Your task to perform on an android device: Add "macbook pro 13 inch" to the cart on target.com Image 0: 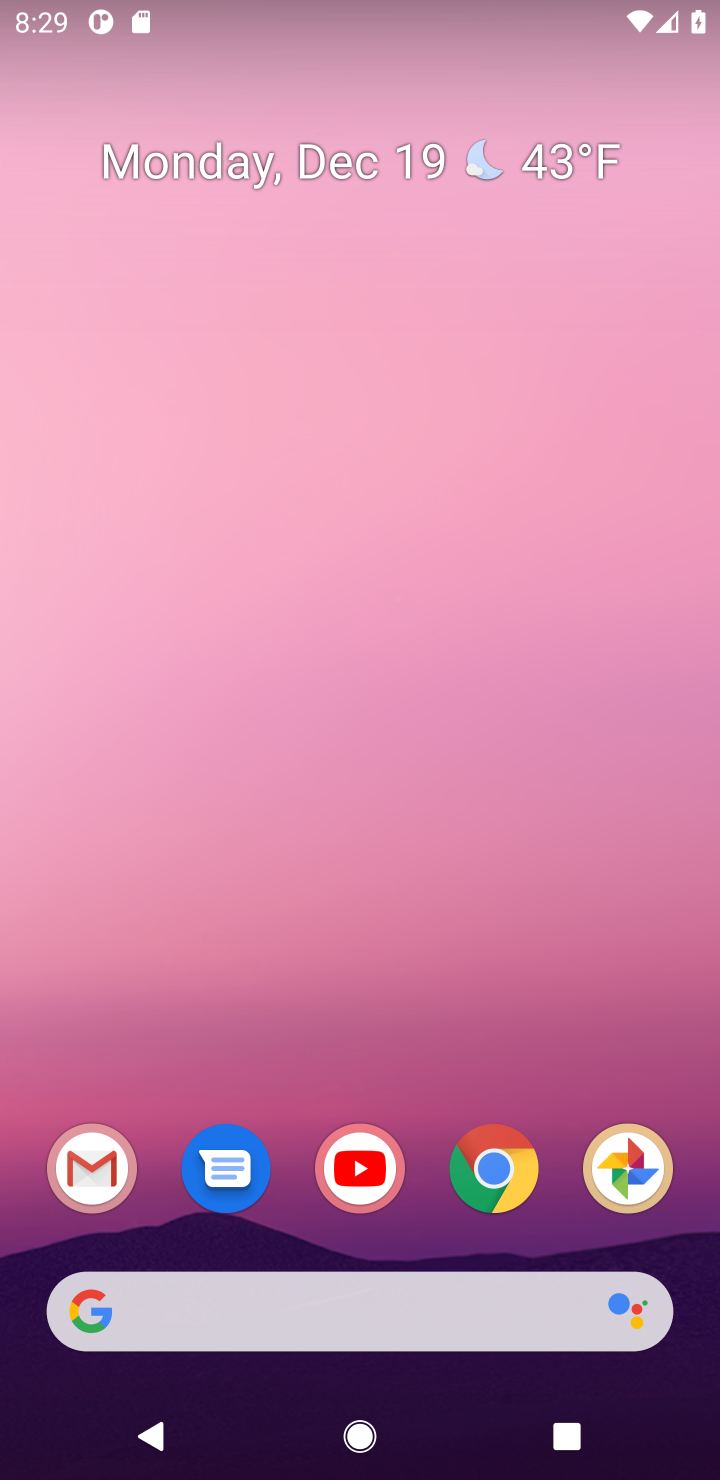
Step 0: click (509, 1176)
Your task to perform on an android device: Add "macbook pro 13 inch" to the cart on target.com Image 1: 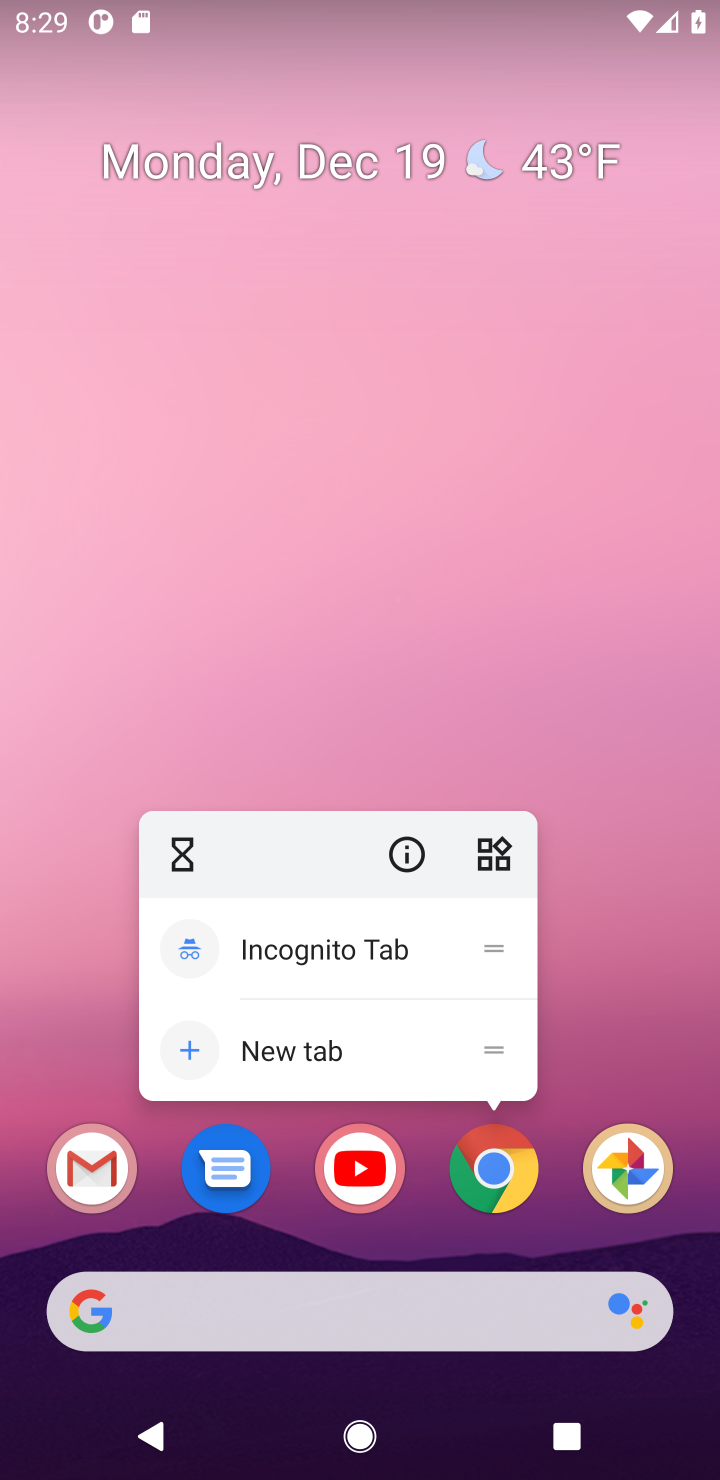
Step 1: click (509, 1176)
Your task to perform on an android device: Add "macbook pro 13 inch" to the cart on target.com Image 2: 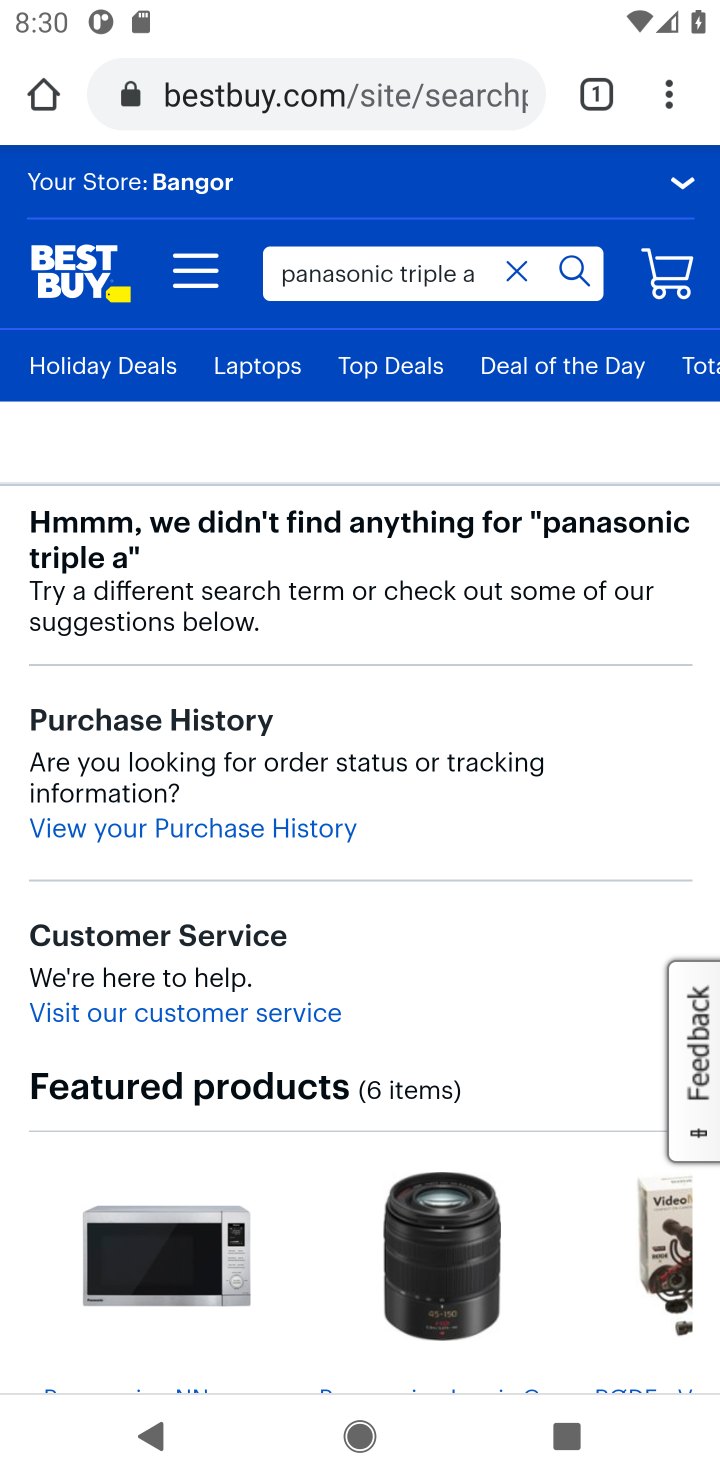
Step 2: click (299, 99)
Your task to perform on an android device: Add "macbook pro 13 inch" to the cart on target.com Image 3: 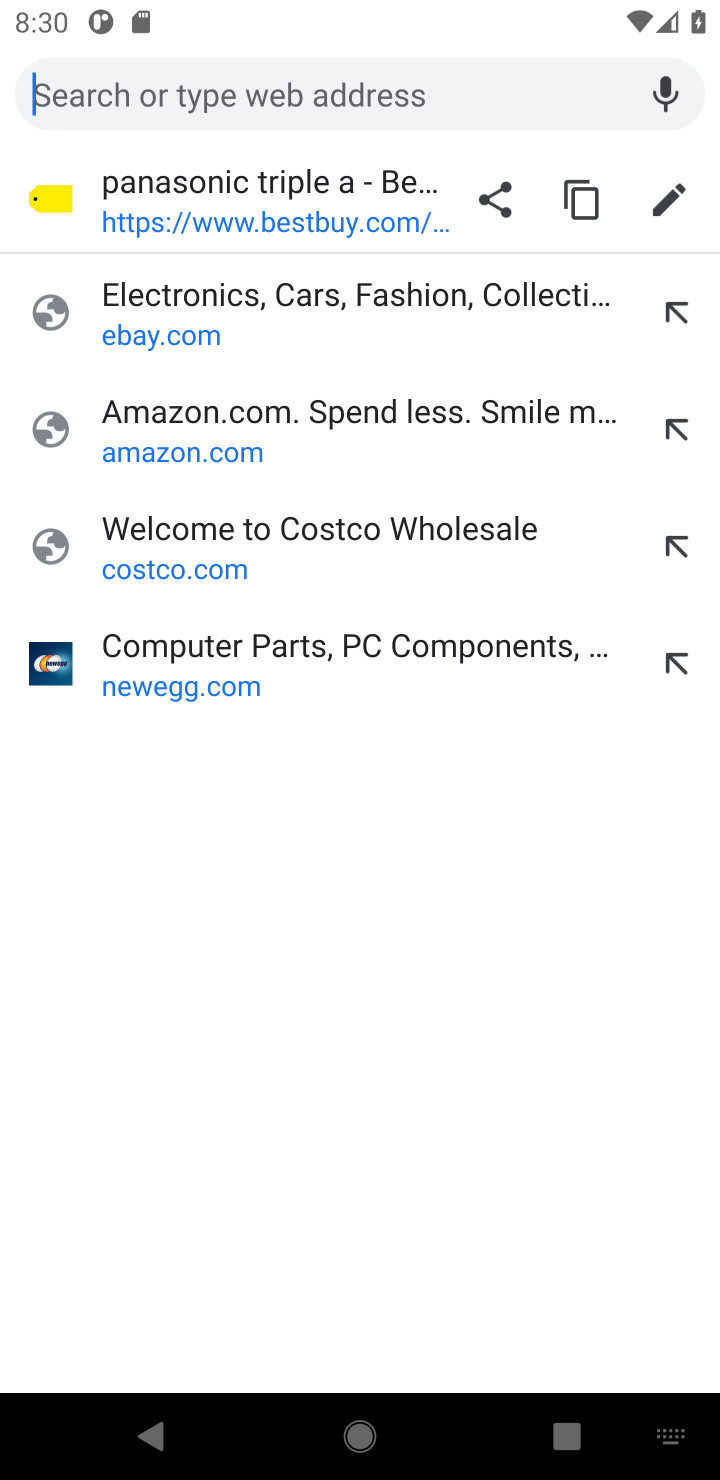
Step 3: type "target.com"
Your task to perform on an android device: Add "macbook pro 13 inch" to the cart on target.com Image 4: 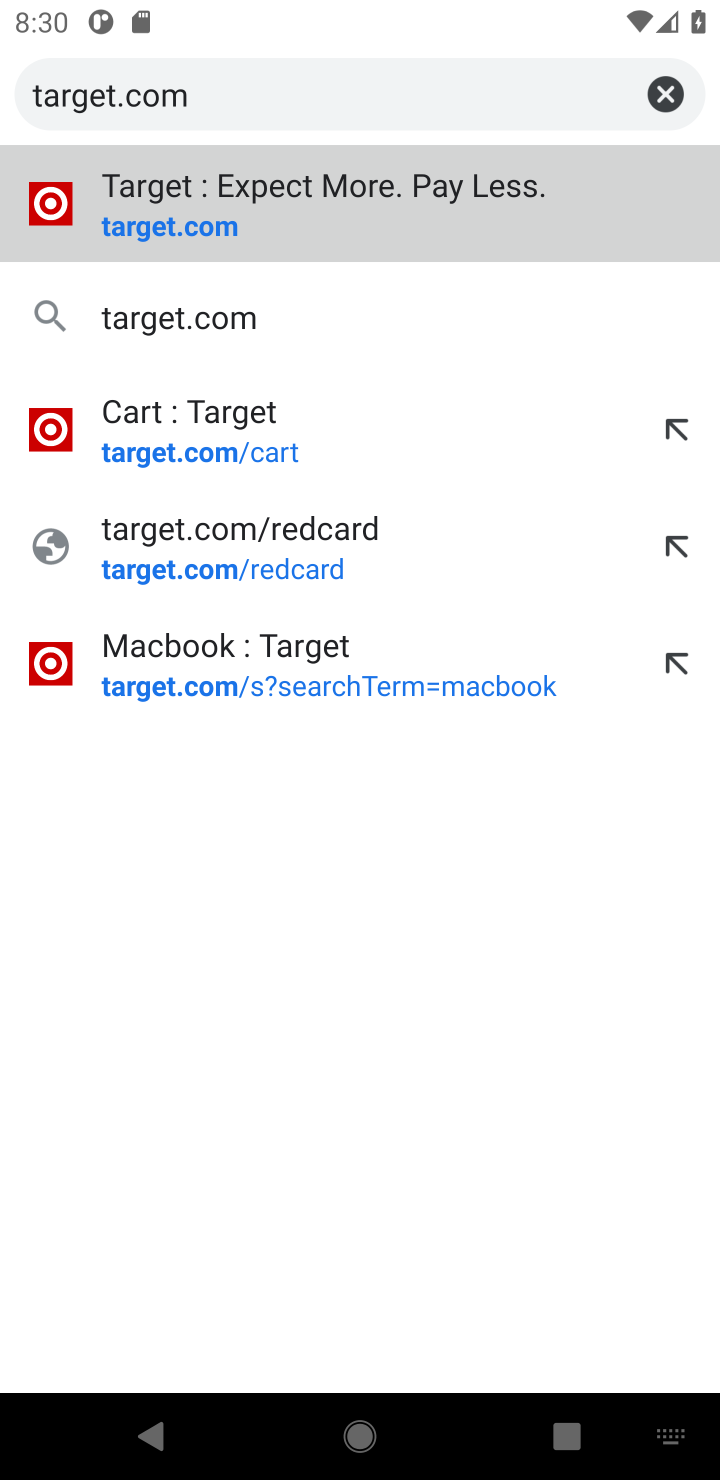
Step 4: click (193, 218)
Your task to perform on an android device: Add "macbook pro 13 inch" to the cart on target.com Image 5: 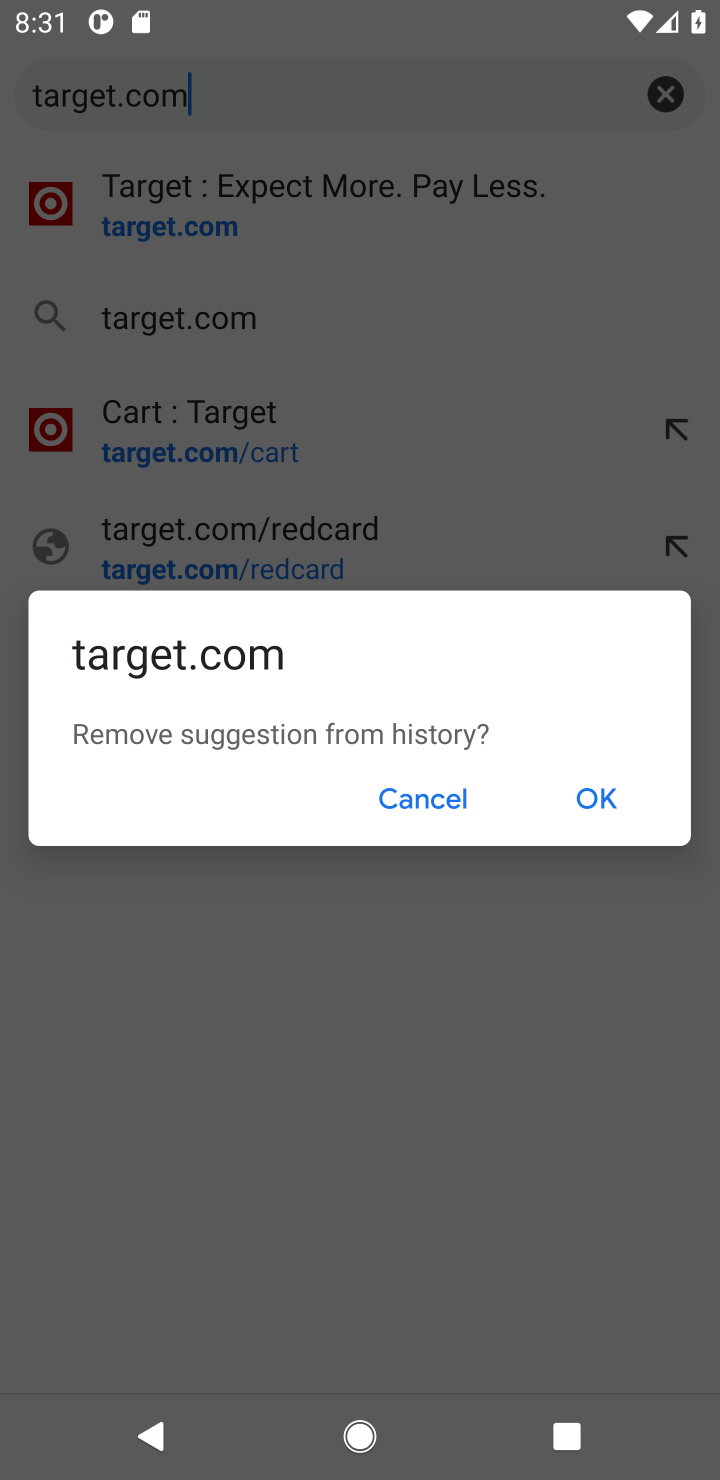
Step 5: click (436, 808)
Your task to perform on an android device: Add "macbook pro 13 inch" to the cart on target.com Image 6: 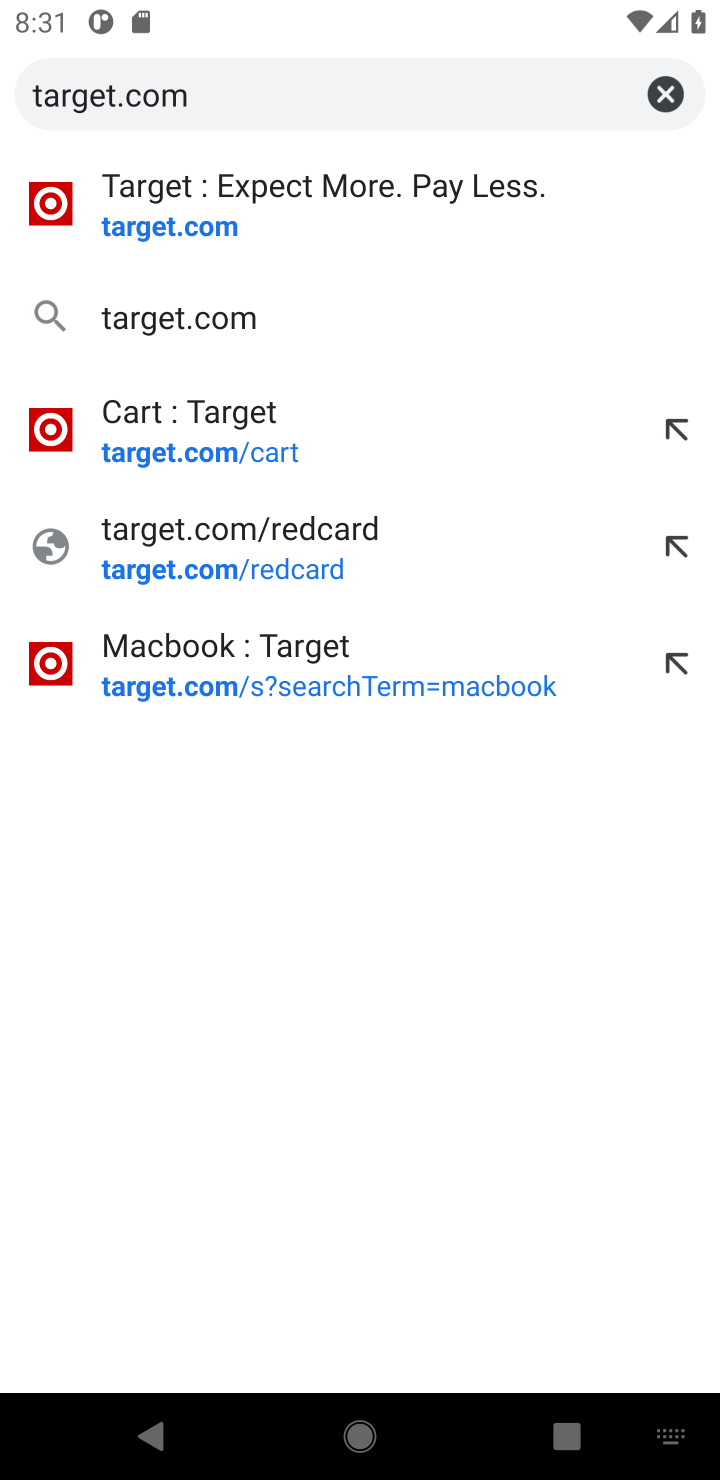
Step 6: click (145, 216)
Your task to perform on an android device: Add "macbook pro 13 inch" to the cart on target.com Image 7: 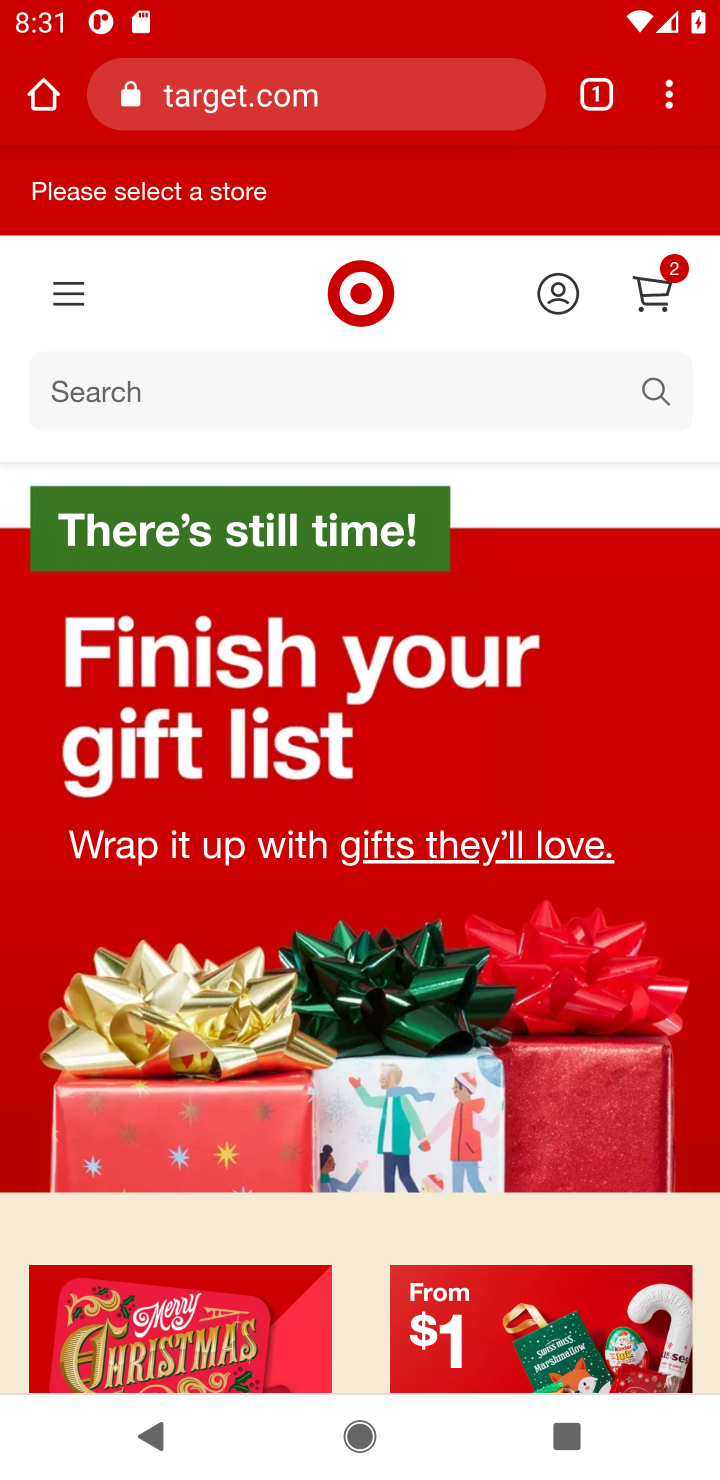
Step 7: click (101, 380)
Your task to perform on an android device: Add "macbook pro 13 inch" to the cart on target.com Image 8: 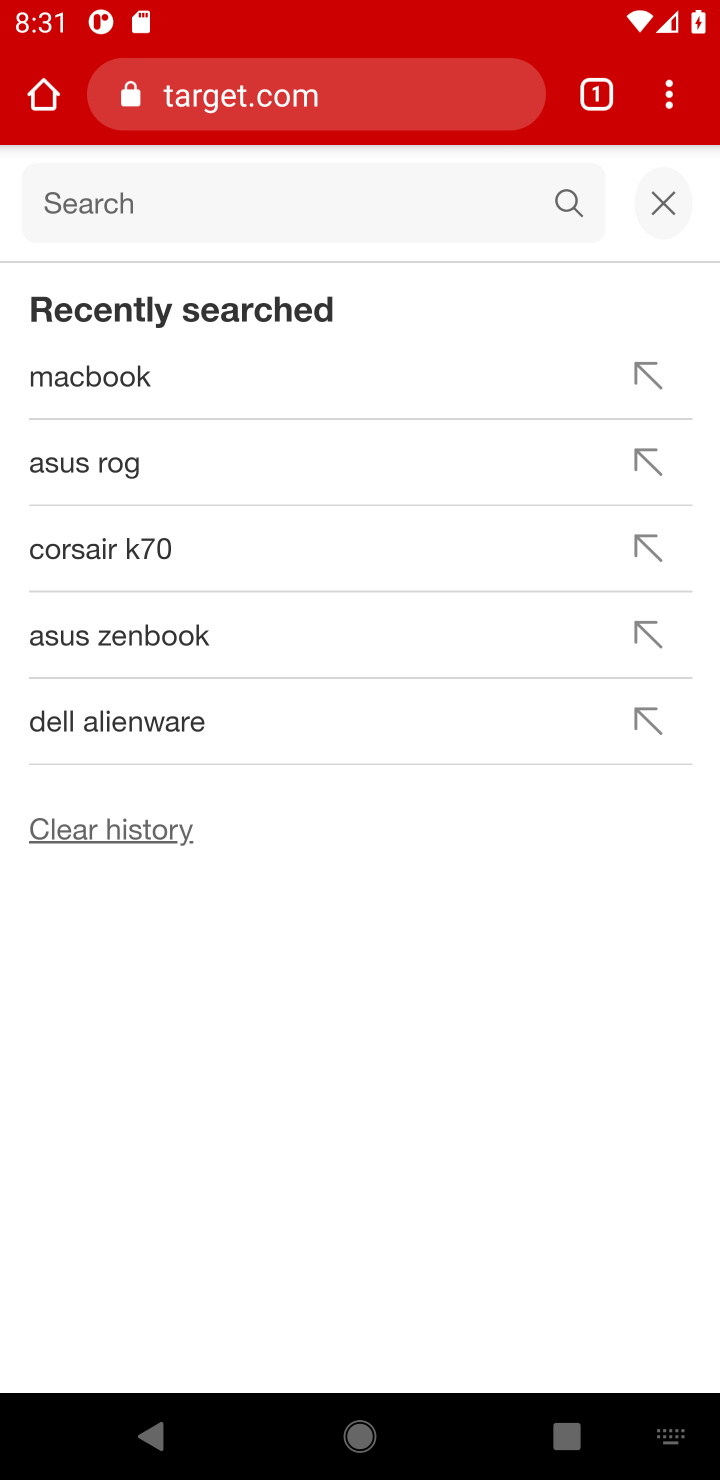
Step 8: type "macbook pro 13 inch"
Your task to perform on an android device: Add "macbook pro 13 inch" to the cart on target.com Image 9: 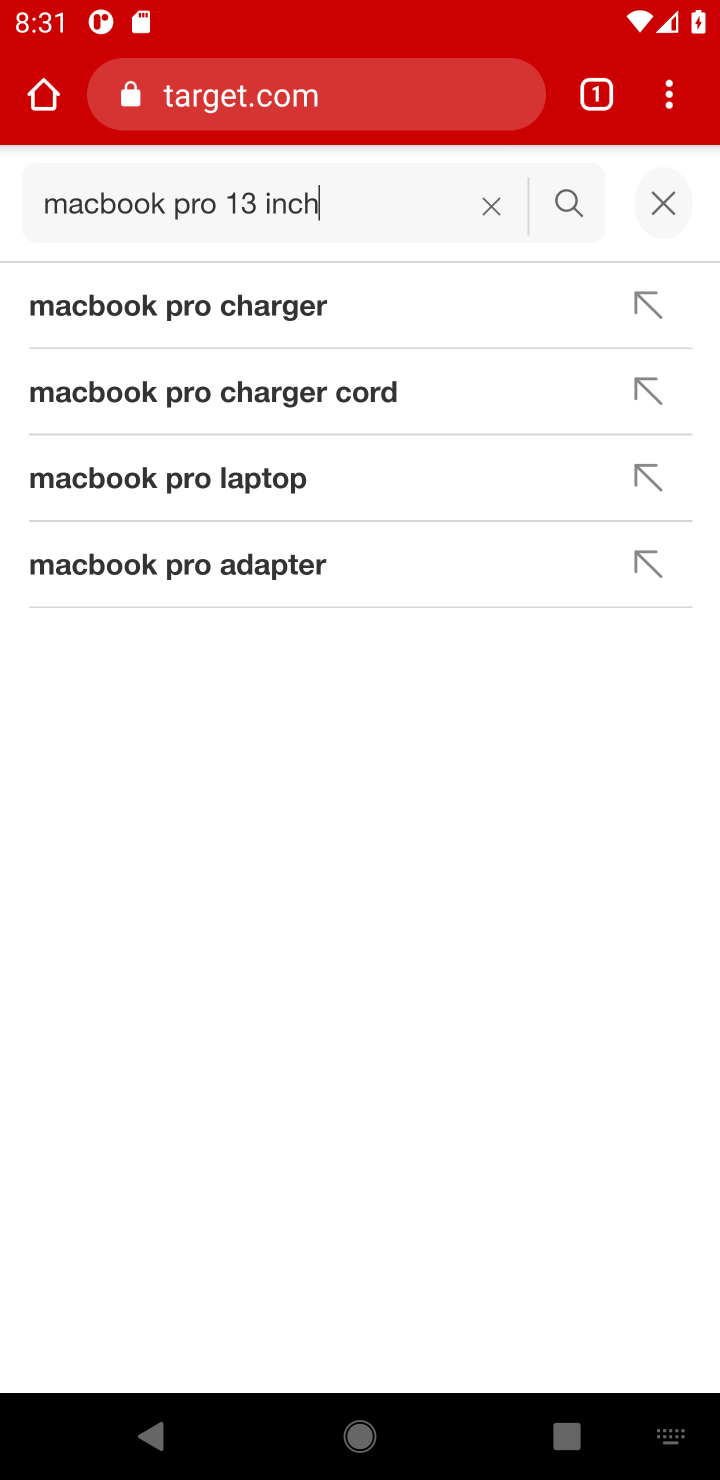
Step 9: click (578, 208)
Your task to perform on an android device: Add "macbook pro 13 inch" to the cart on target.com Image 10: 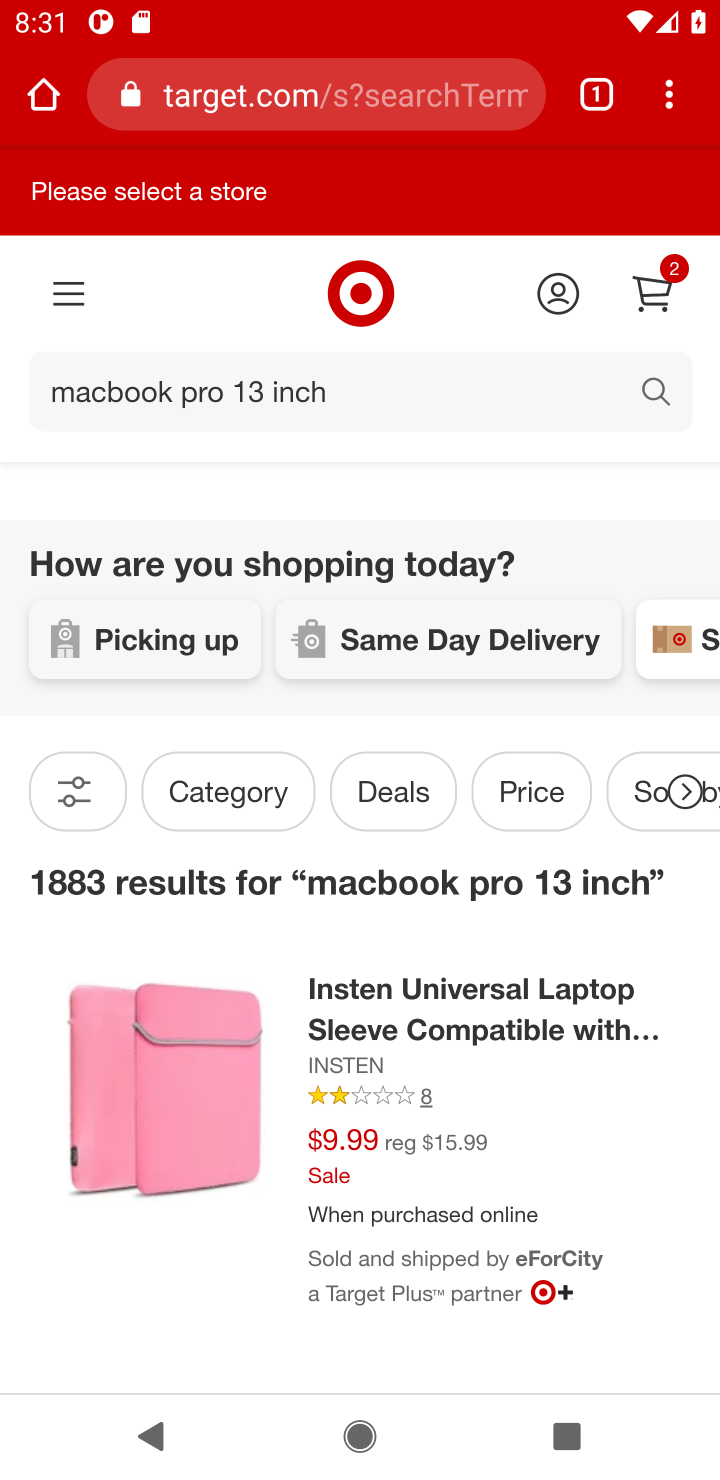
Step 10: drag from (331, 1101) to (350, 547)
Your task to perform on an android device: Add "macbook pro 13 inch" to the cart on target.com Image 11: 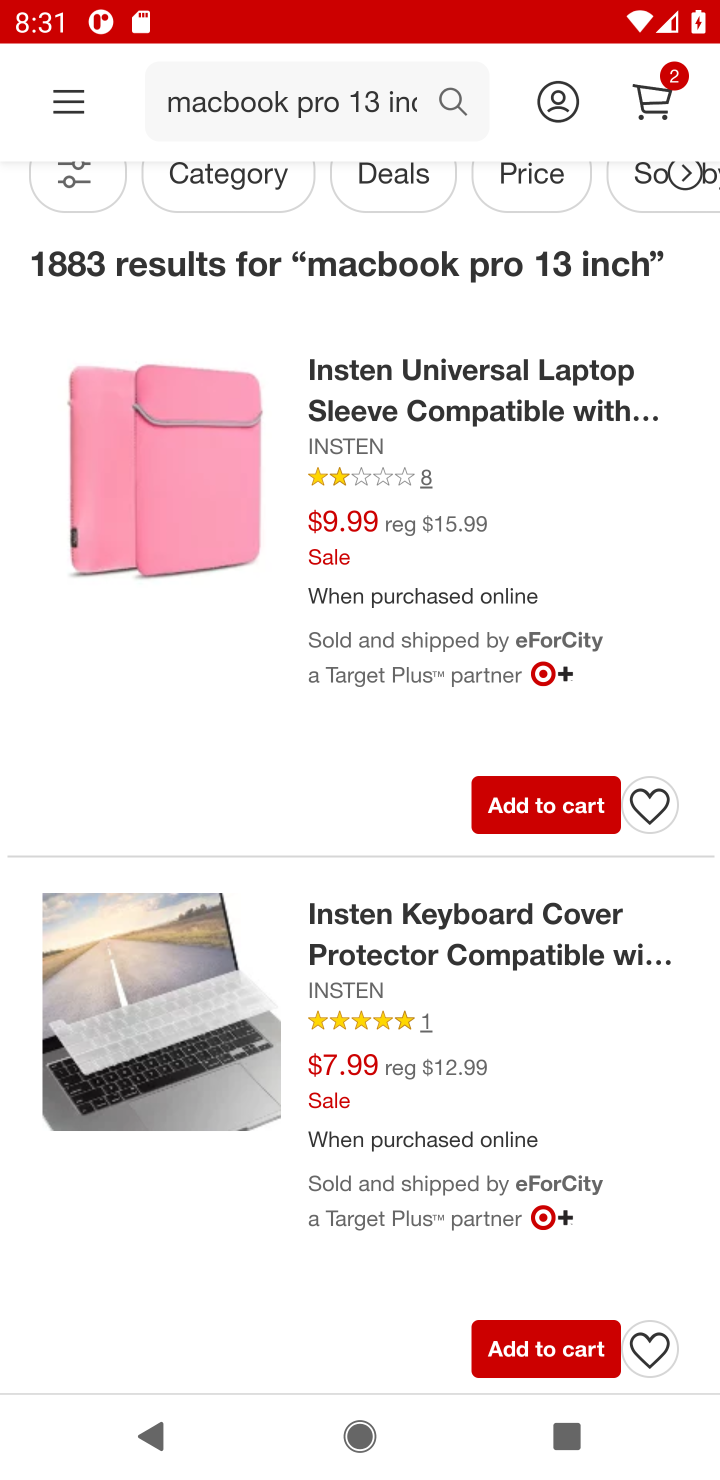
Step 11: click (377, 401)
Your task to perform on an android device: Add "macbook pro 13 inch" to the cart on target.com Image 12: 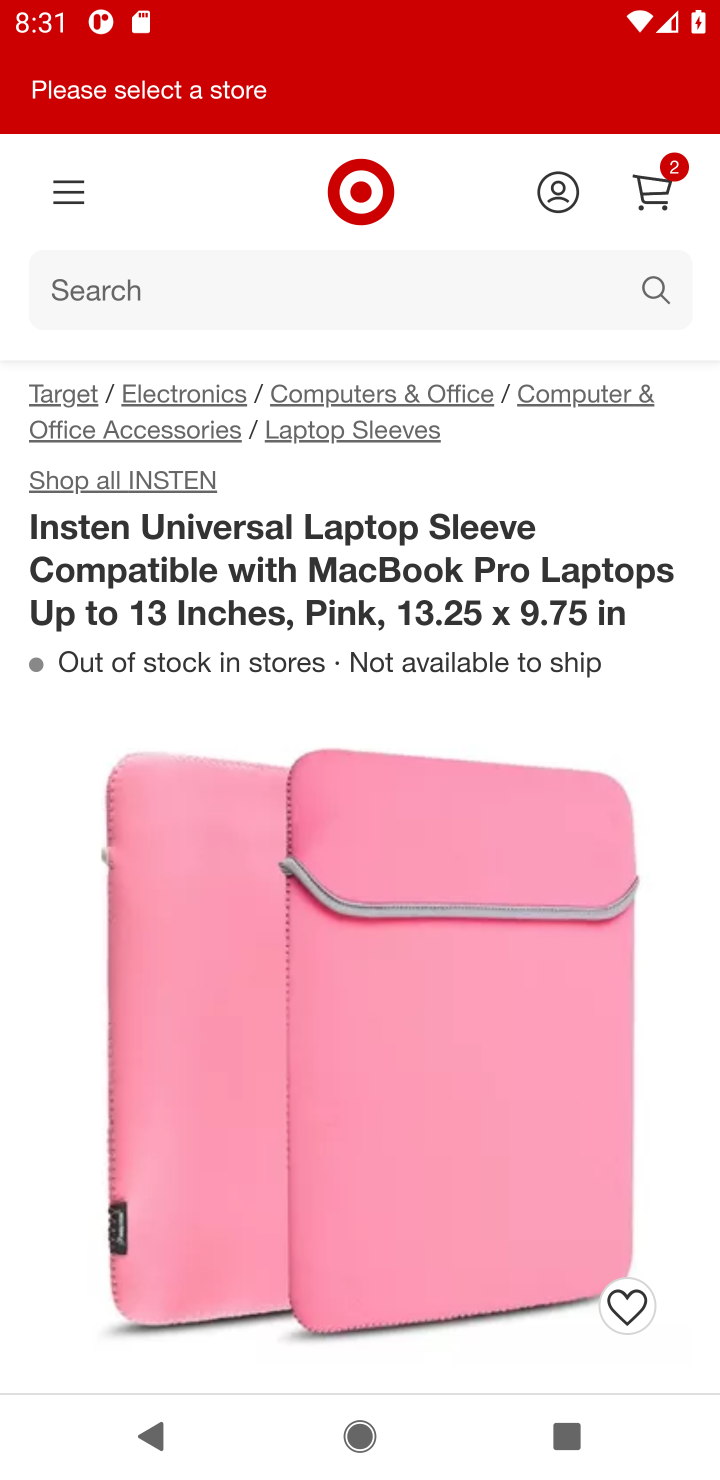
Step 12: drag from (346, 993) to (296, 511)
Your task to perform on an android device: Add "macbook pro 13 inch" to the cart on target.com Image 13: 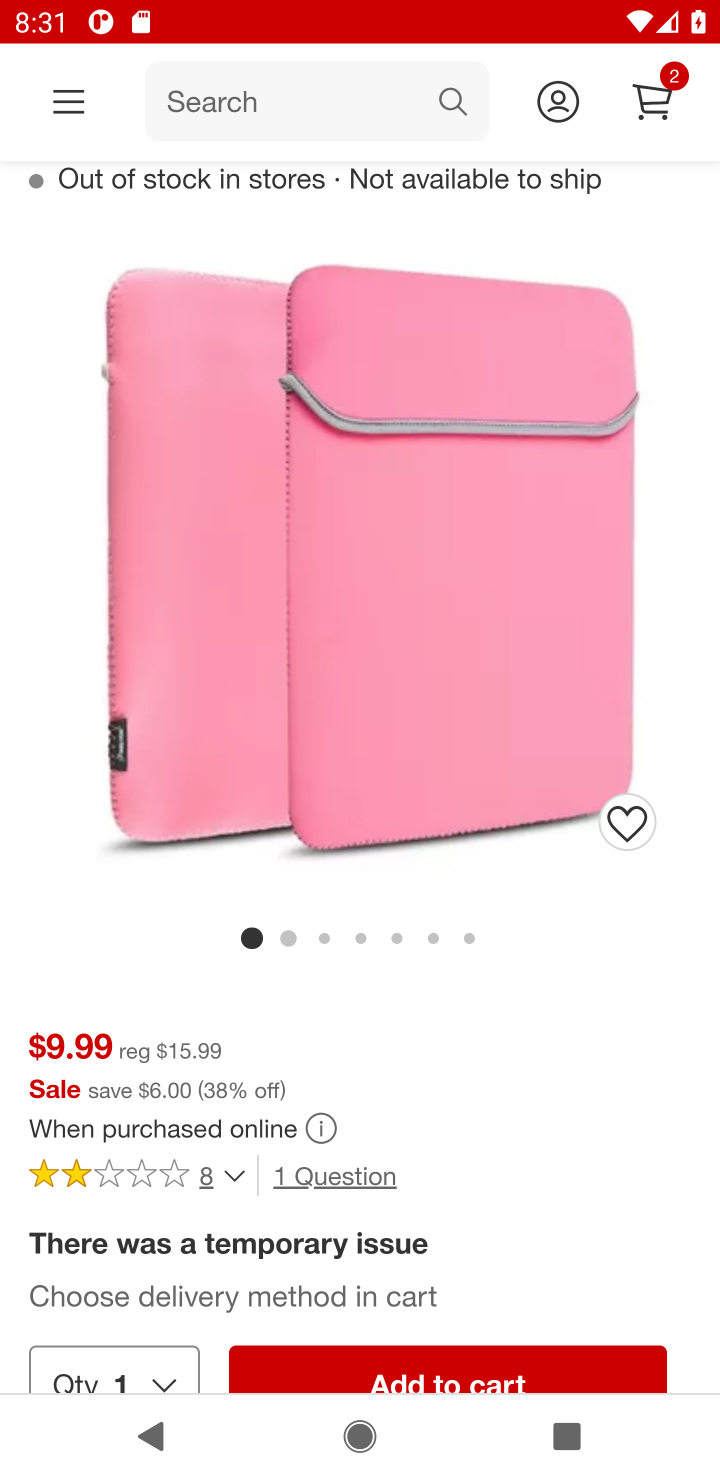
Step 13: drag from (294, 949) to (316, 627)
Your task to perform on an android device: Add "macbook pro 13 inch" to the cart on target.com Image 14: 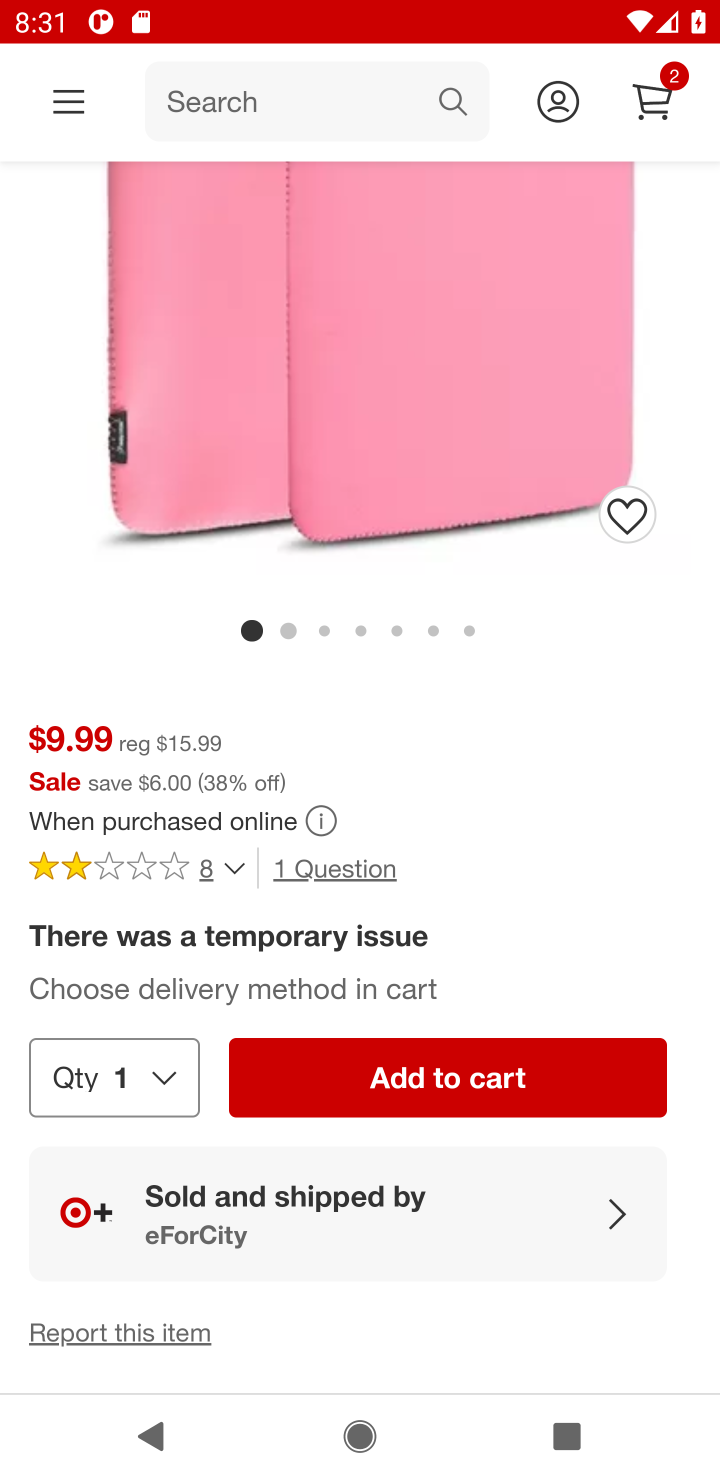
Step 14: click (360, 1081)
Your task to perform on an android device: Add "macbook pro 13 inch" to the cart on target.com Image 15: 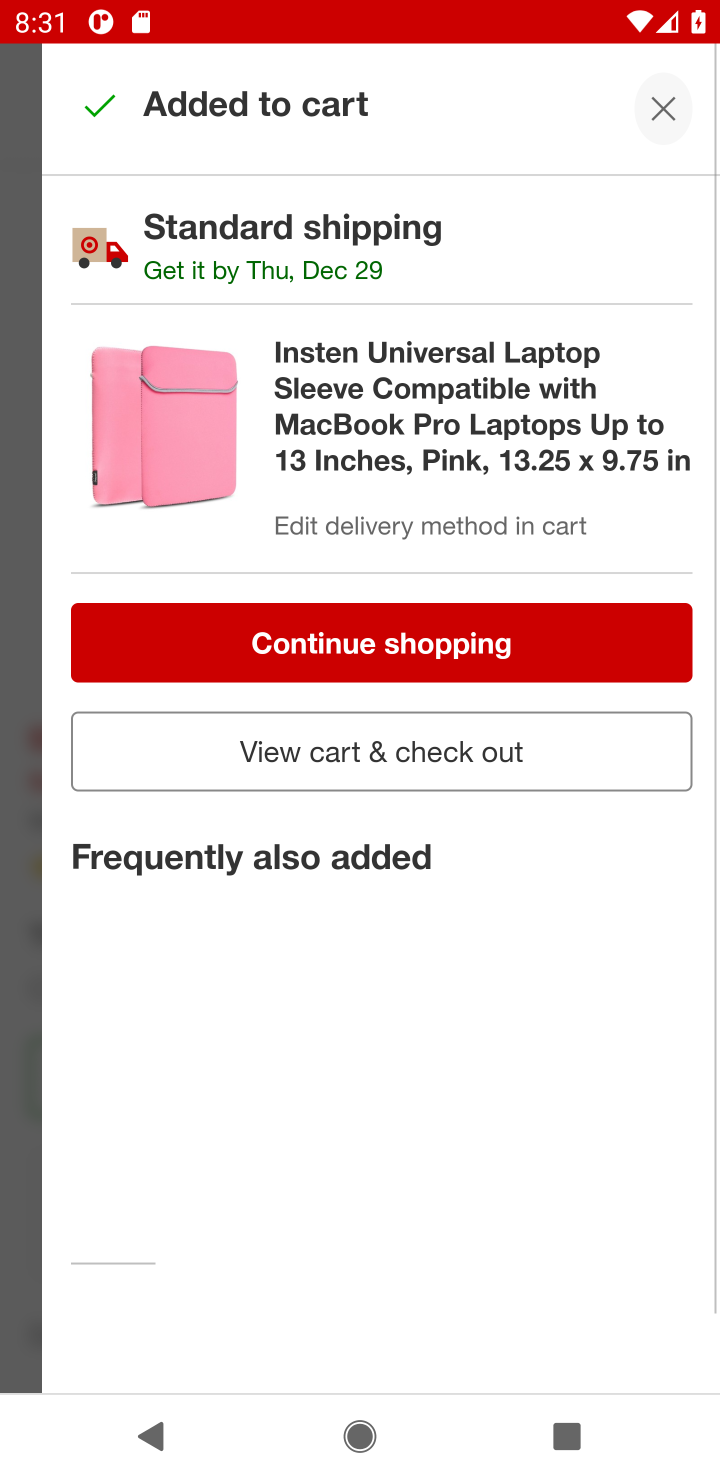
Step 15: task complete